Your task to perform on an android device: Open Amazon Image 0: 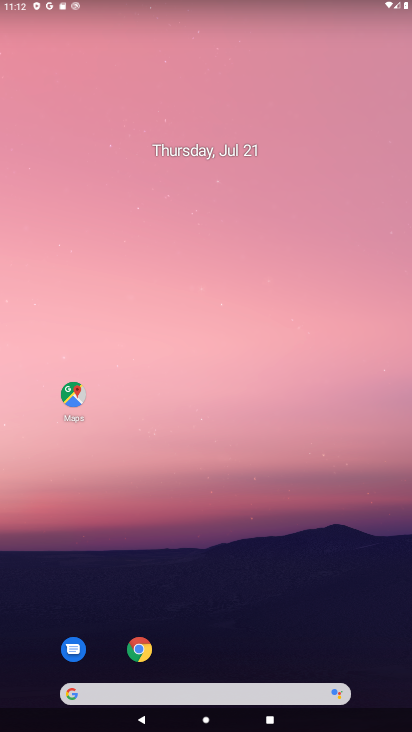
Step 0: click (138, 649)
Your task to perform on an android device: Open Amazon Image 1: 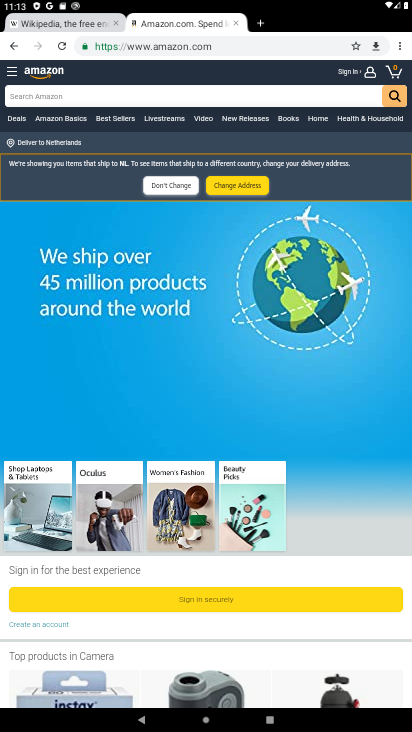
Step 1: task complete